Your task to perform on an android device: Search for Italian restaurants on Maps Image 0: 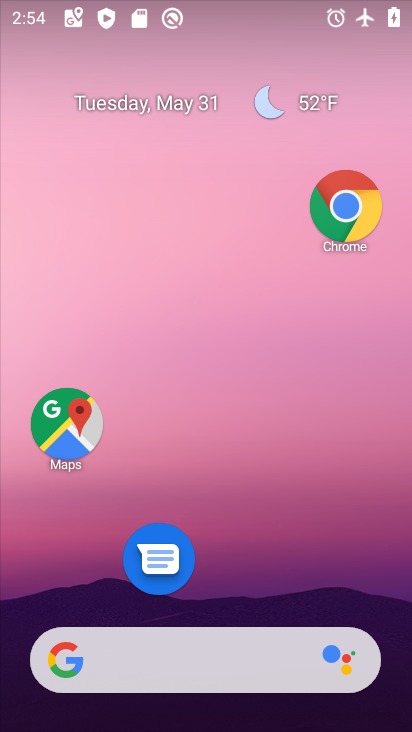
Step 0: drag from (247, 572) to (193, 109)
Your task to perform on an android device: Search for Italian restaurants on Maps Image 1: 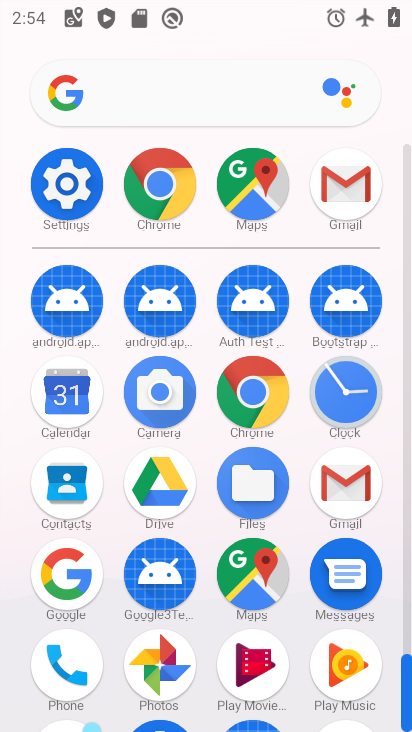
Step 1: click (254, 582)
Your task to perform on an android device: Search for Italian restaurants on Maps Image 2: 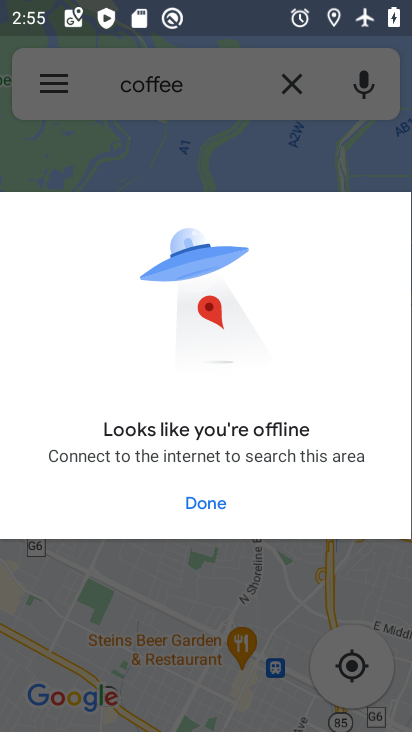
Step 2: task complete